Your task to perform on an android device: change the clock display to digital Image 0: 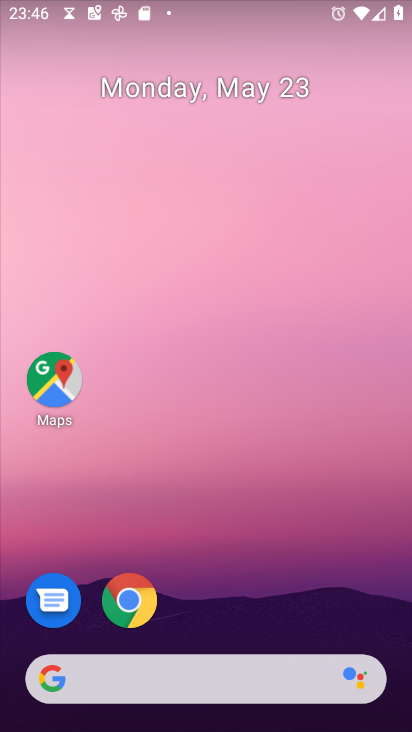
Step 0: drag from (214, 724) to (209, 102)
Your task to perform on an android device: change the clock display to digital Image 1: 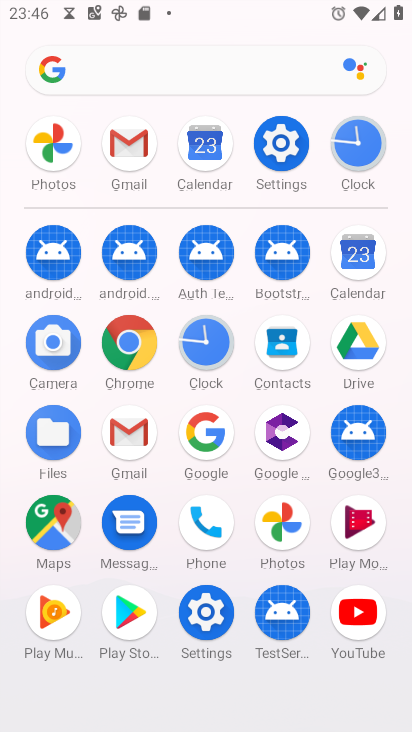
Step 1: click (209, 345)
Your task to perform on an android device: change the clock display to digital Image 2: 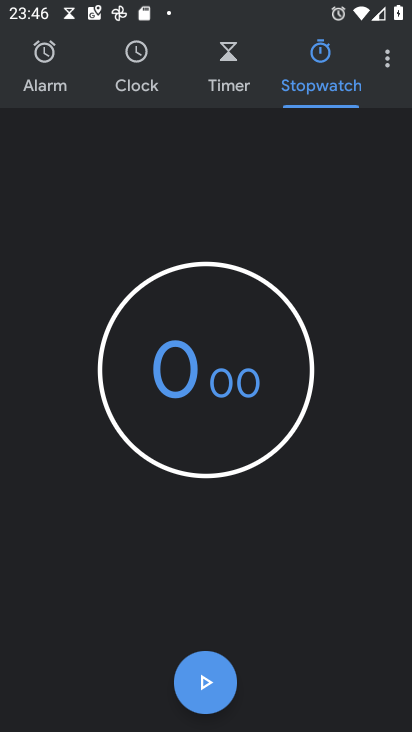
Step 2: click (387, 62)
Your task to perform on an android device: change the clock display to digital Image 3: 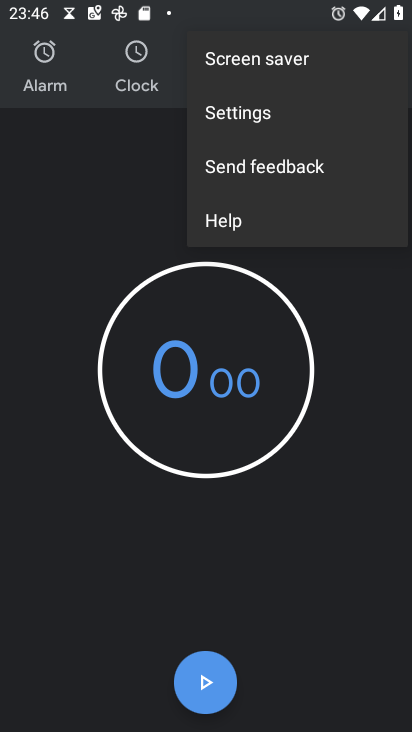
Step 3: click (248, 109)
Your task to perform on an android device: change the clock display to digital Image 4: 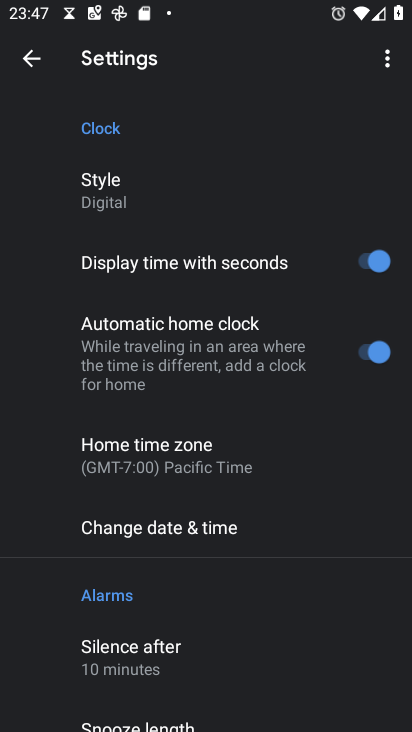
Step 4: task complete